Your task to perform on an android device: Is it going to rain this weekend? Image 0: 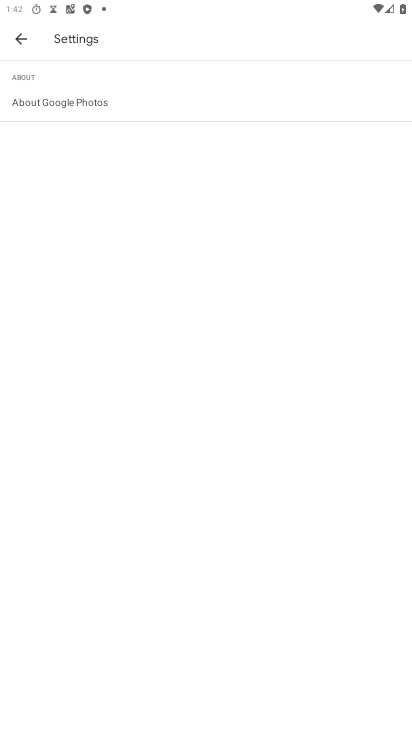
Step 0: press home button
Your task to perform on an android device: Is it going to rain this weekend? Image 1: 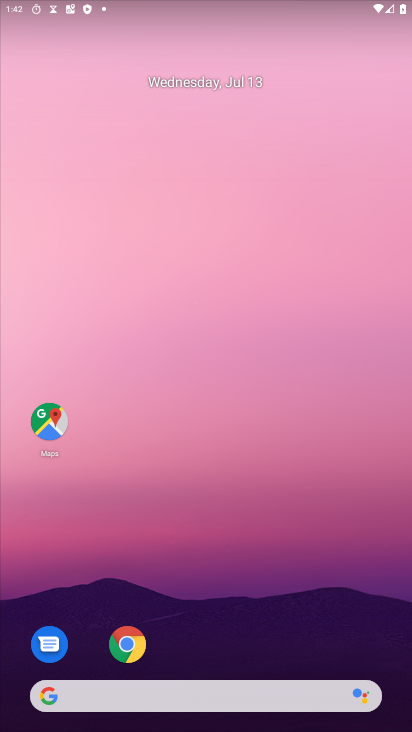
Step 1: press home button
Your task to perform on an android device: Is it going to rain this weekend? Image 2: 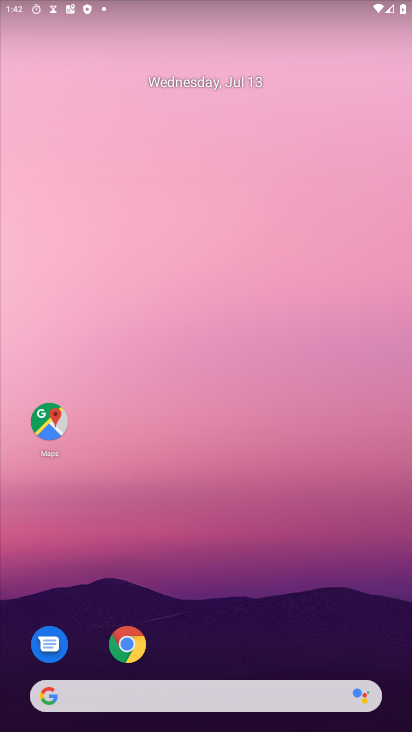
Step 2: press home button
Your task to perform on an android device: Is it going to rain this weekend? Image 3: 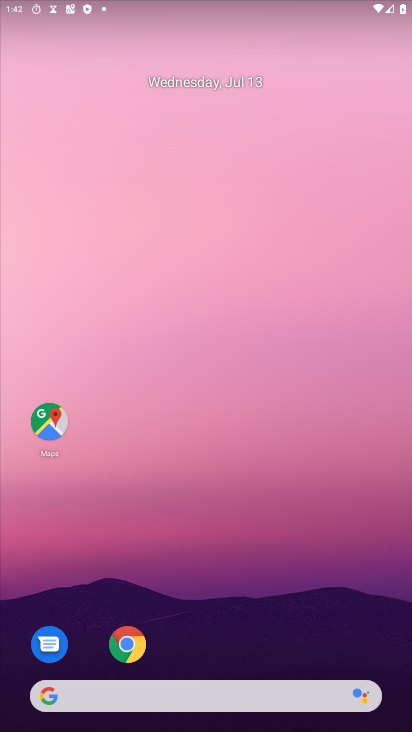
Step 3: press home button
Your task to perform on an android device: Is it going to rain this weekend? Image 4: 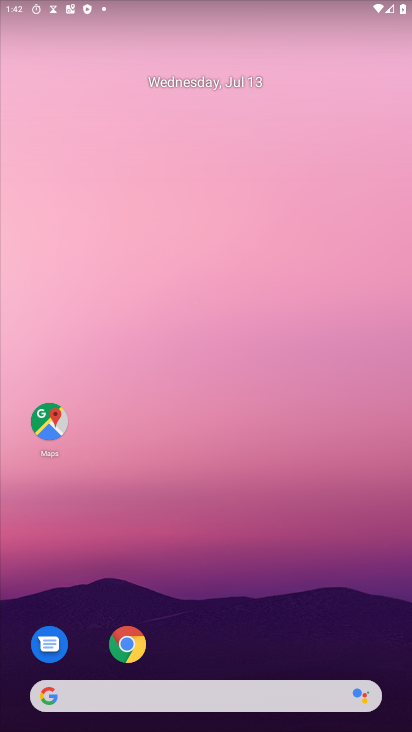
Step 4: press home button
Your task to perform on an android device: Is it going to rain this weekend? Image 5: 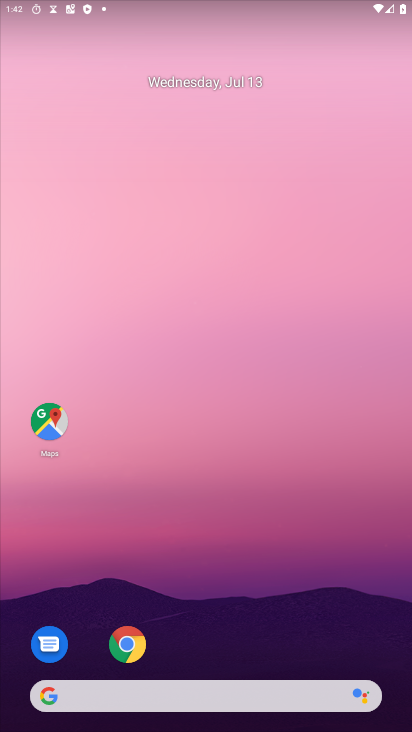
Step 5: press home button
Your task to perform on an android device: Is it going to rain this weekend? Image 6: 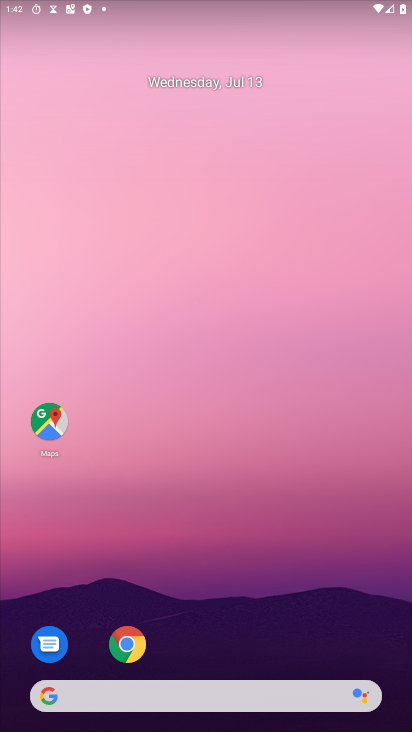
Step 6: click (204, 697)
Your task to perform on an android device: Is it going to rain this weekend? Image 7: 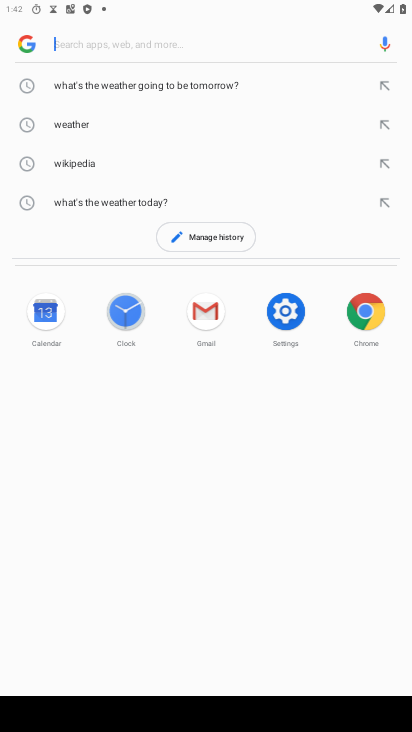
Step 7: type "Is it going to rain this weekend?"
Your task to perform on an android device: Is it going to rain this weekend? Image 8: 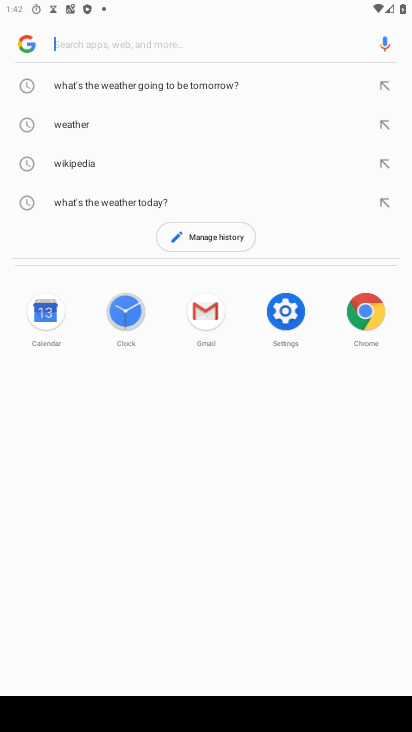
Step 8: click (117, 47)
Your task to perform on an android device: Is it going to rain this weekend? Image 9: 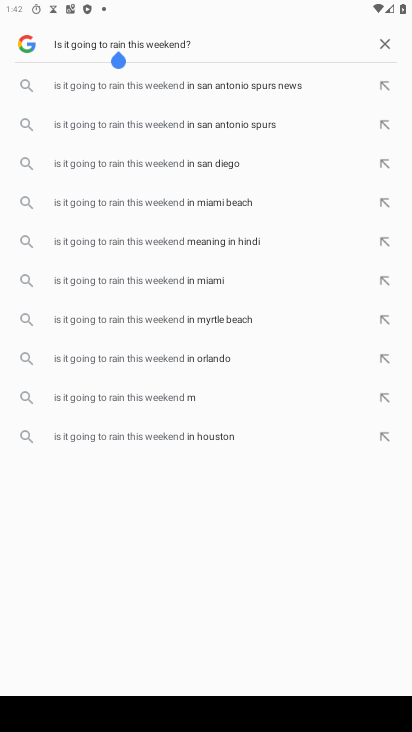
Step 9: press enter
Your task to perform on an android device: Is it going to rain this weekend? Image 10: 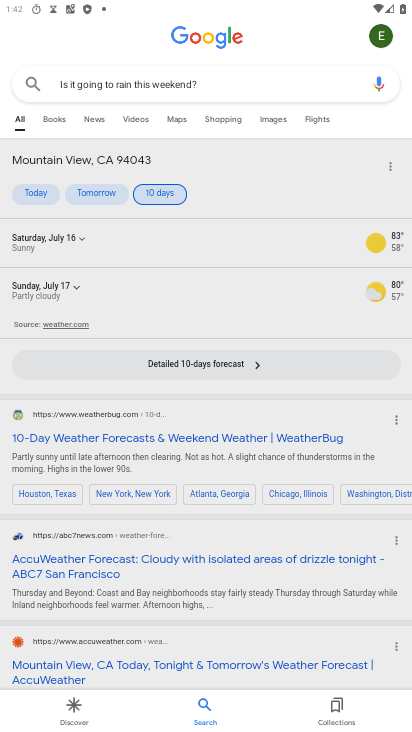
Step 10: task complete